Your task to perform on an android device: Open sound settings Image 0: 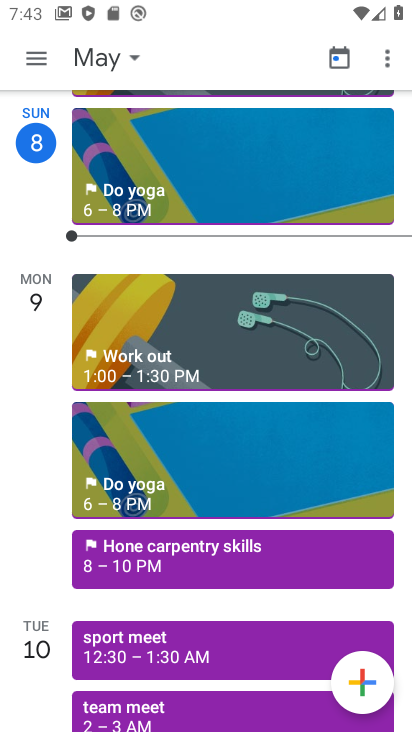
Step 0: press home button
Your task to perform on an android device: Open sound settings Image 1: 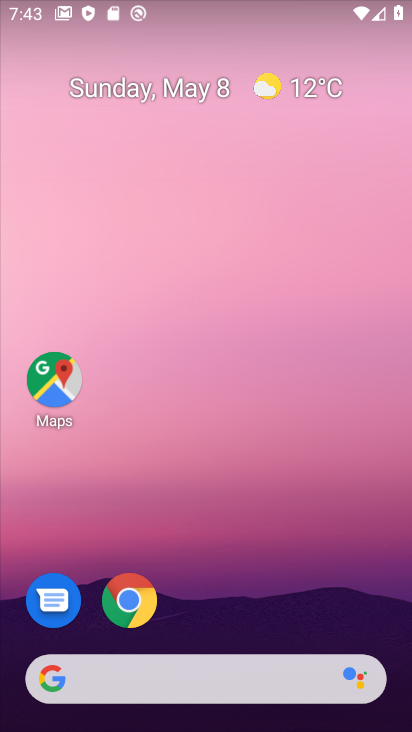
Step 1: drag from (233, 530) to (291, 233)
Your task to perform on an android device: Open sound settings Image 2: 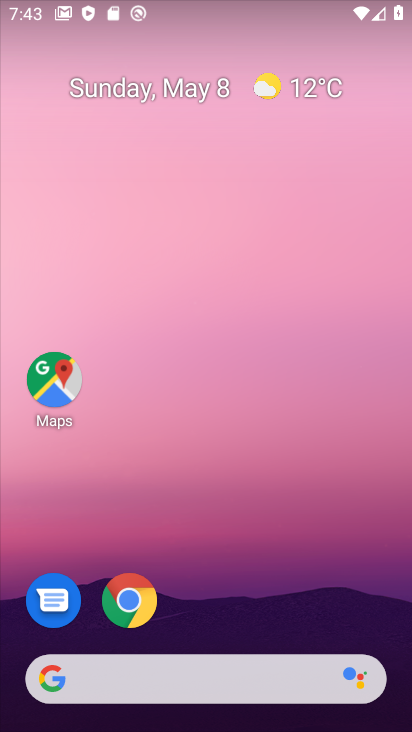
Step 2: drag from (261, 638) to (286, 81)
Your task to perform on an android device: Open sound settings Image 3: 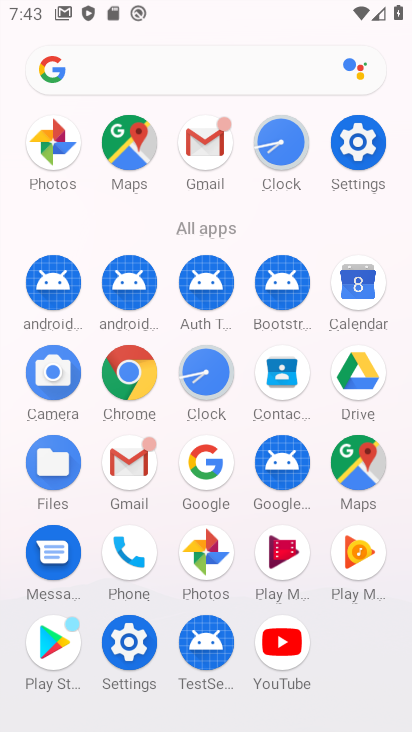
Step 3: click (351, 138)
Your task to perform on an android device: Open sound settings Image 4: 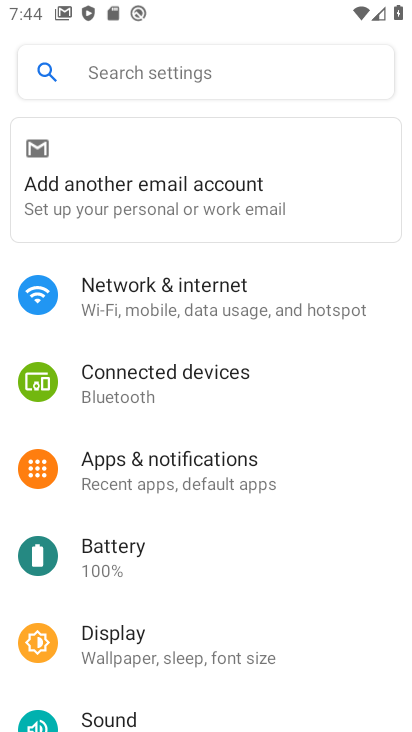
Step 4: click (127, 716)
Your task to perform on an android device: Open sound settings Image 5: 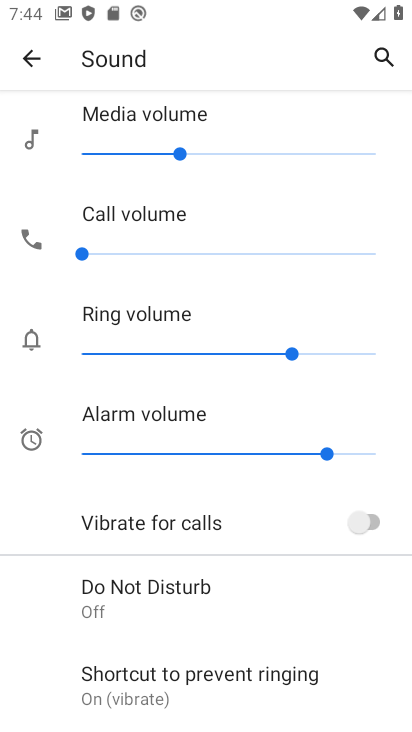
Step 5: task complete